Your task to perform on an android device: uninstall "YouTube Kids" Image 0: 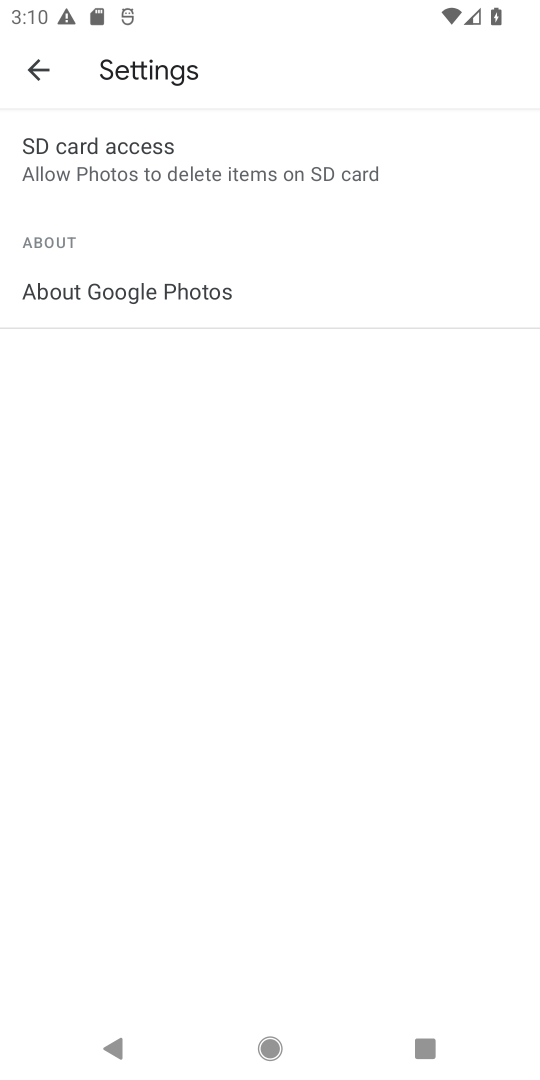
Step 0: press home button
Your task to perform on an android device: uninstall "YouTube Kids" Image 1: 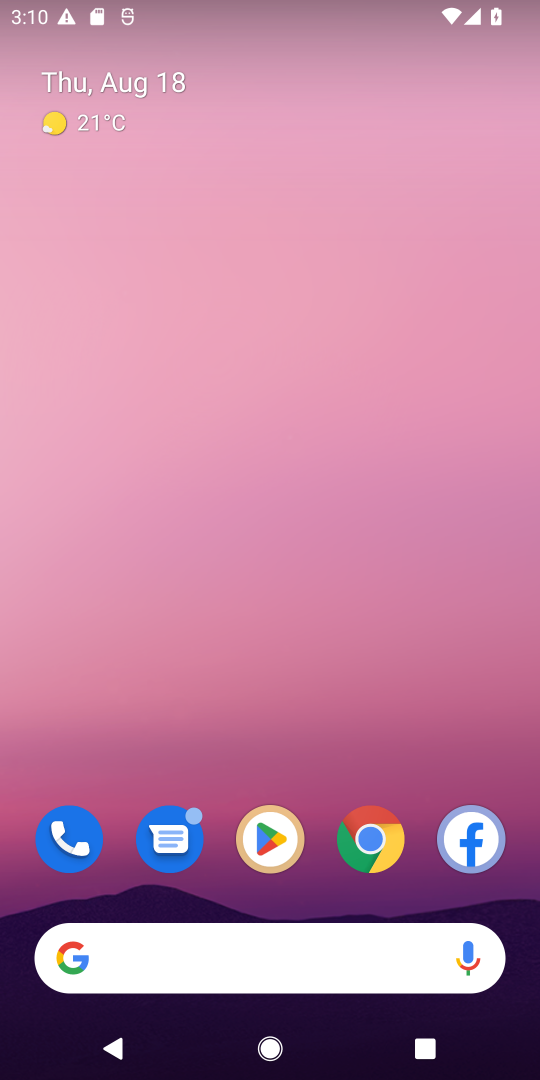
Step 1: click (267, 821)
Your task to perform on an android device: uninstall "YouTube Kids" Image 2: 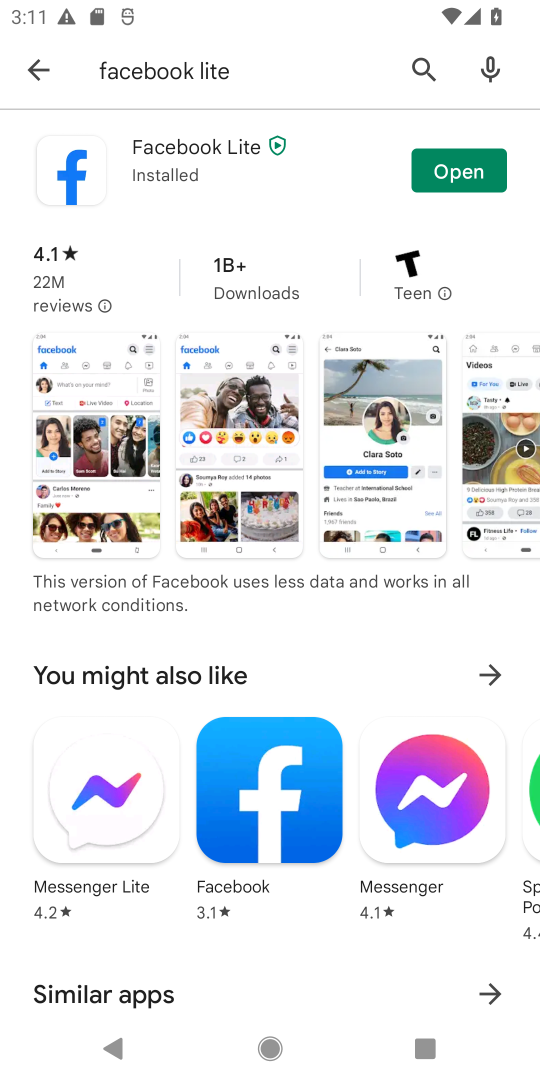
Step 2: click (46, 64)
Your task to perform on an android device: uninstall "YouTube Kids" Image 3: 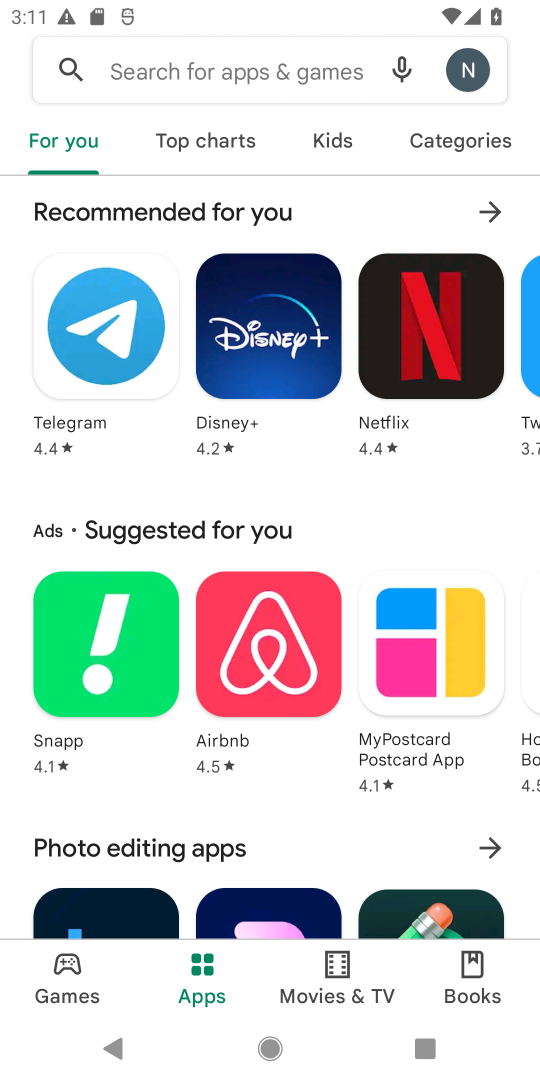
Step 3: click (116, 72)
Your task to perform on an android device: uninstall "YouTube Kids" Image 4: 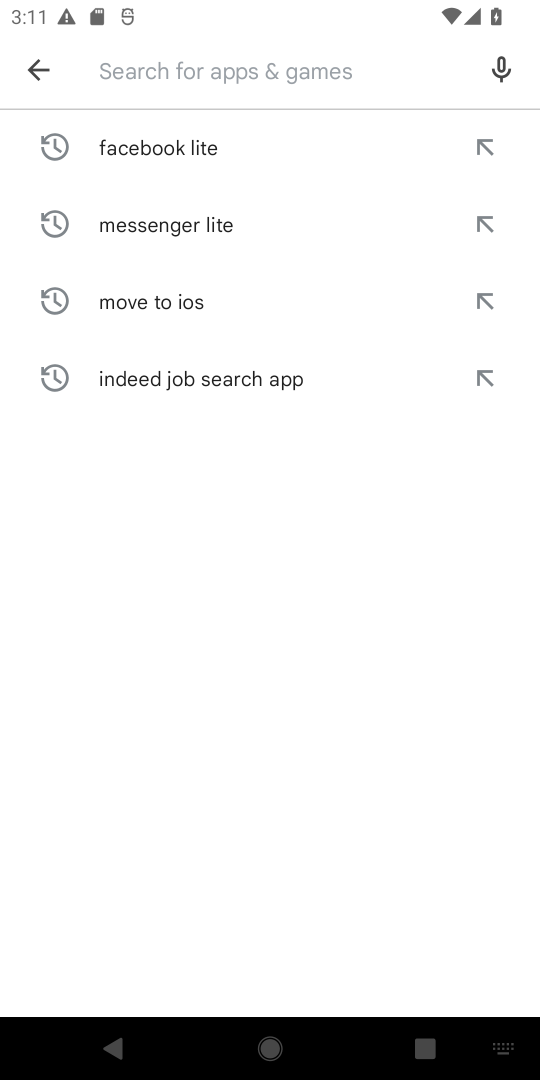
Step 4: type "YouTube Kid"
Your task to perform on an android device: uninstall "YouTube Kids" Image 5: 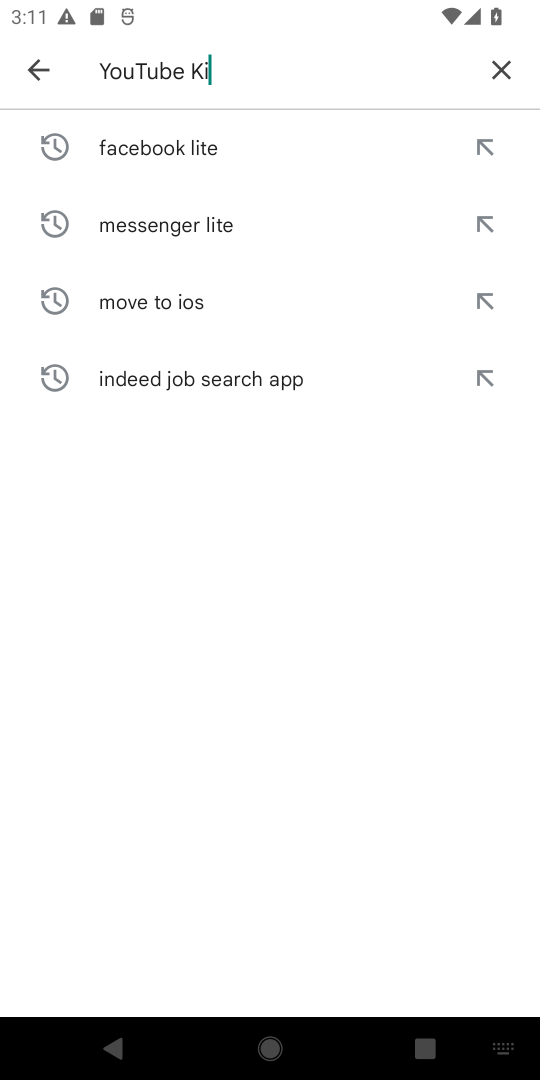
Step 5: type ""
Your task to perform on an android device: uninstall "YouTube Kids" Image 6: 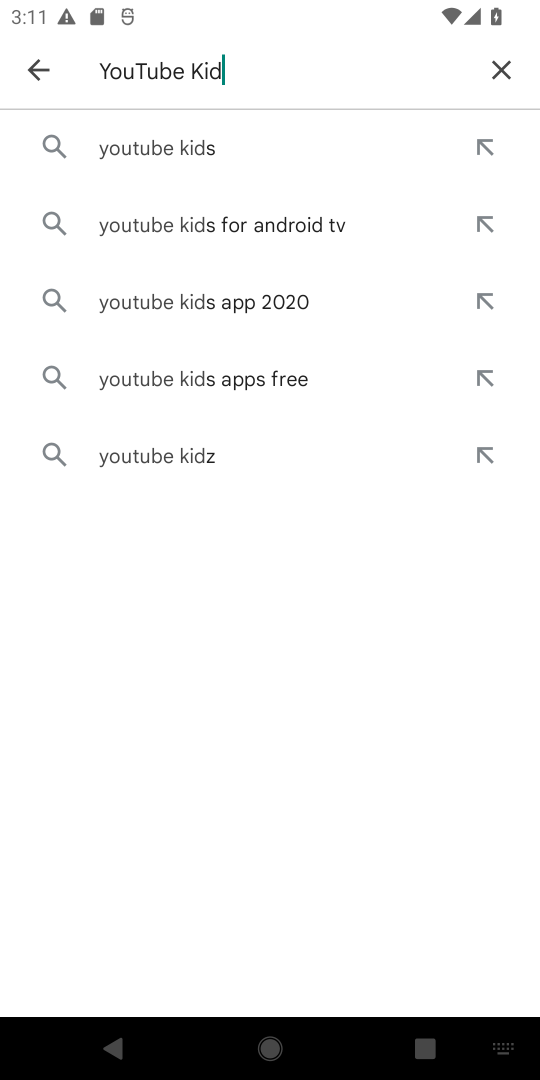
Step 6: click (172, 145)
Your task to perform on an android device: uninstall "YouTube Kids" Image 7: 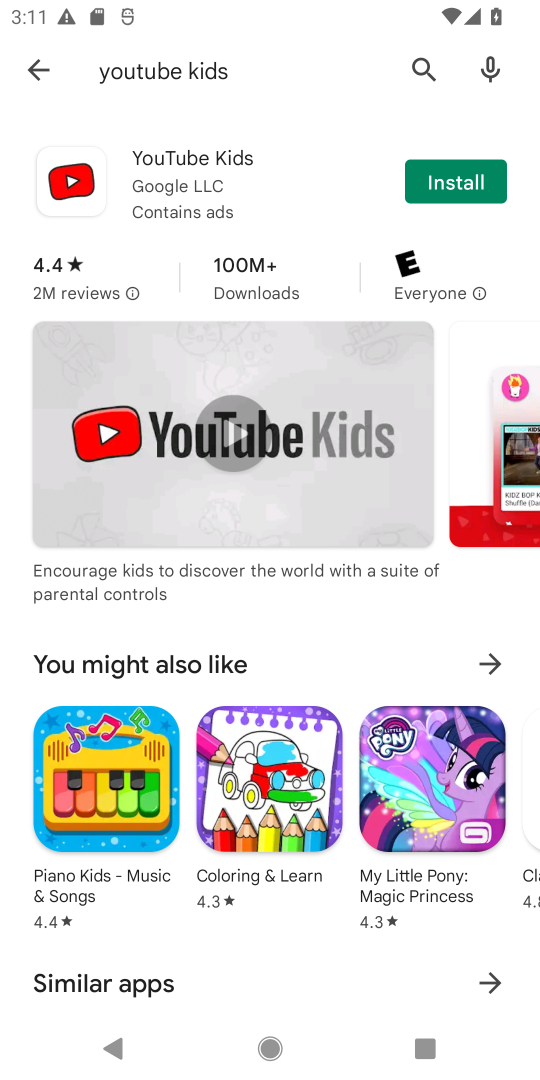
Step 7: click (187, 162)
Your task to perform on an android device: uninstall "YouTube Kids" Image 8: 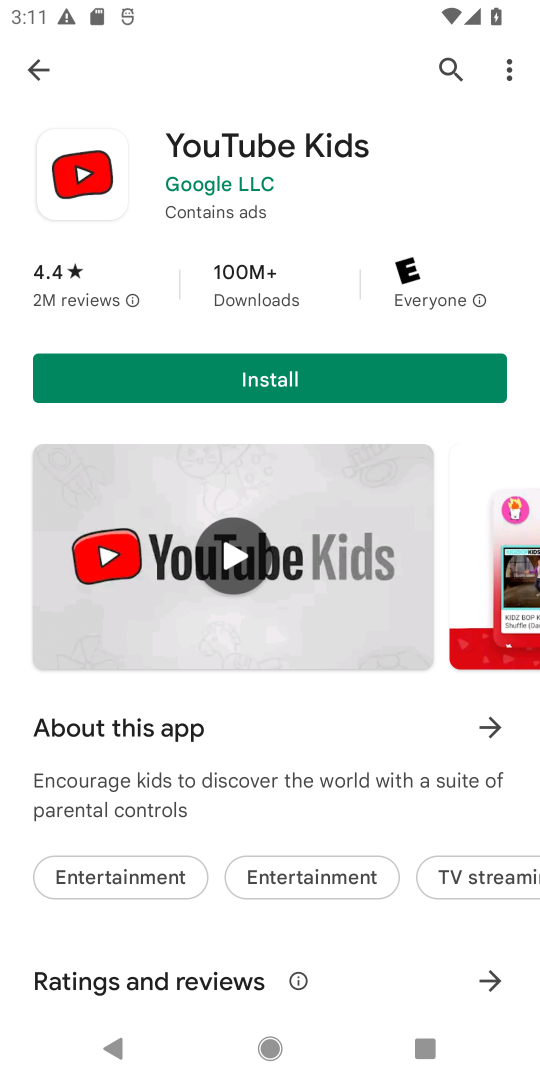
Step 8: task complete